Your task to perform on an android device: Open Yahoo.com Image 0: 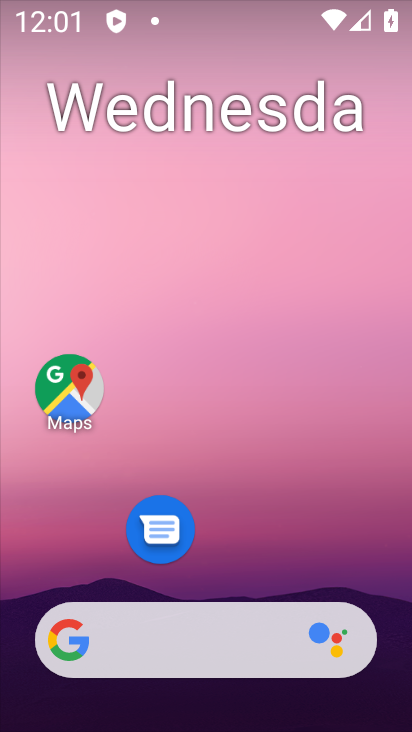
Step 0: drag from (188, 591) to (169, 18)
Your task to perform on an android device: Open Yahoo.com Image 1: 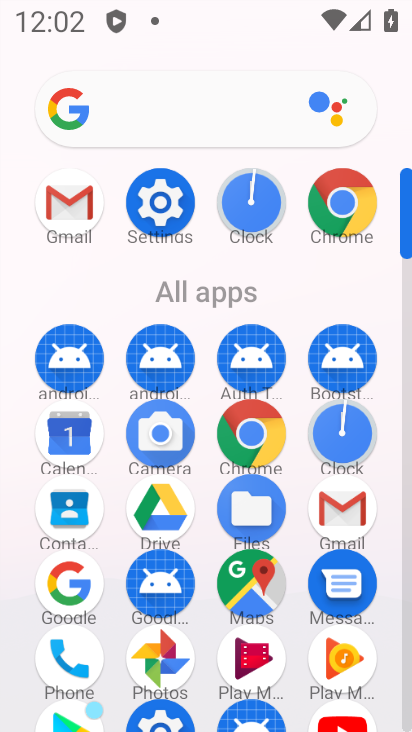
Step 1: click (251, 443)
Your task to perform on an android device: Open Yahoo.com Image 2: 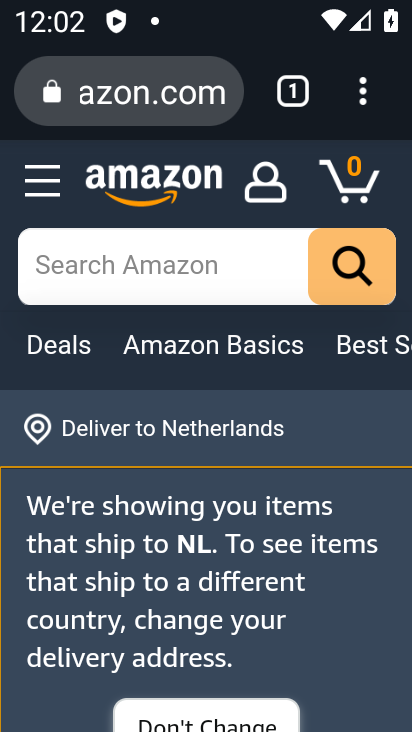
Step 2: click (286, 91)
Your task to perform on an android device: Open Yahoo.com Image 3: 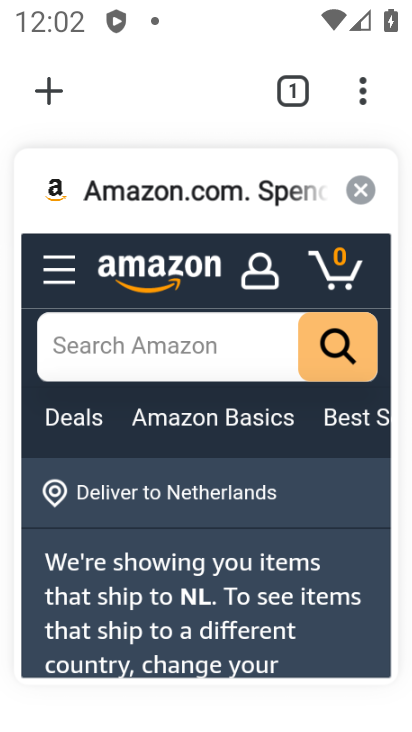
Step 3: click (25, 102)
Your task to perform on an android device: Open Yahoo.com Image 4: 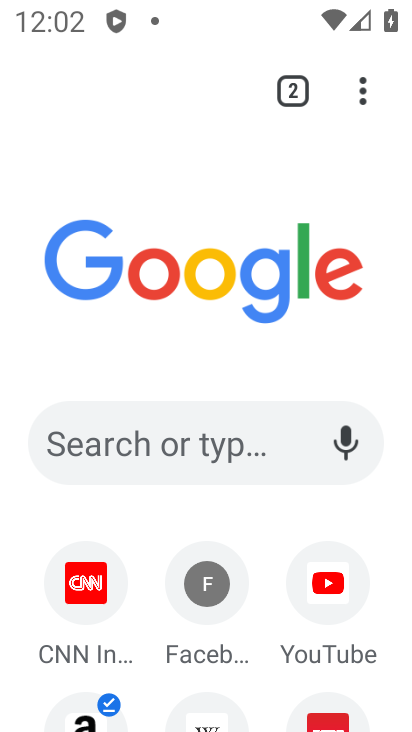
Step 4: click (161, 456)
Your task to perform on an android device: Open Yahoo.com Image 5: 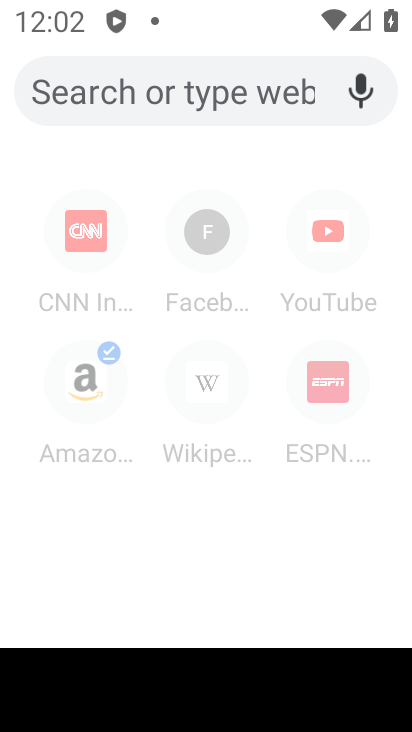
Step 5: type "yahhoo"
Your task to perform on an android device: Open Yahoo.com Image 6: 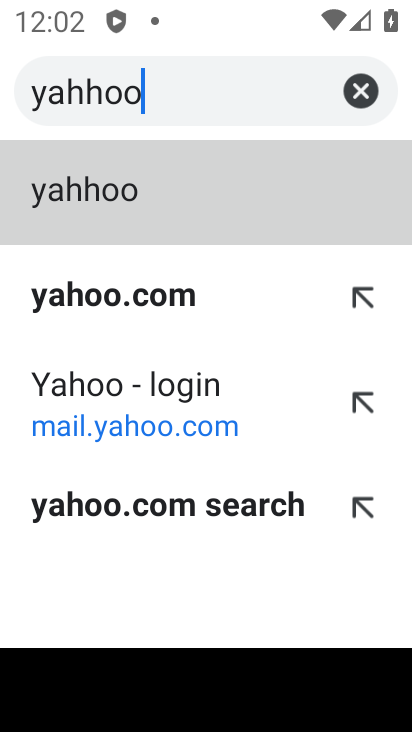
Step 6: click (201, 415)
Your task to perform on an android device: Open Yahoo.com Image 7: 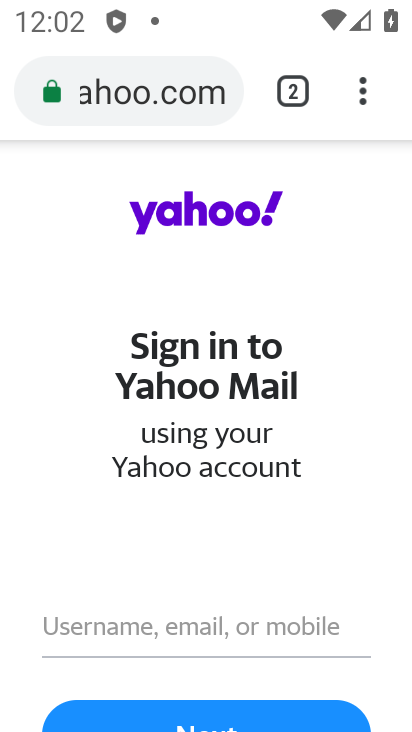
Step 7: task complete